Your task to perform on an android device: Open the calendar app, open the side menu, and click the "Day" option Image 0: 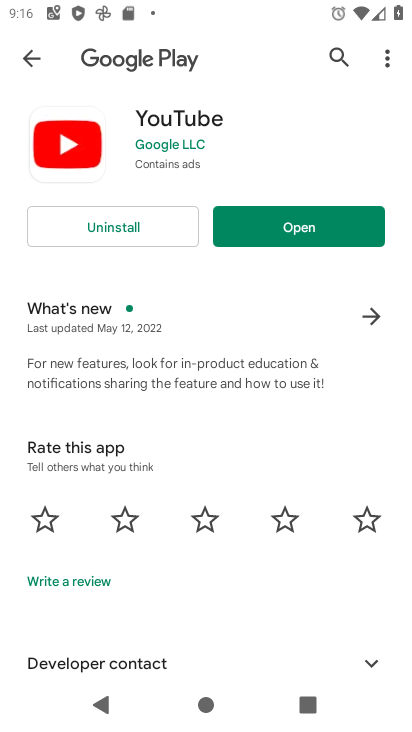
Step 0: press home button
Your task to perform on an android device: Open the calendar app, open the side menu, and click the "Day" option Image 1: 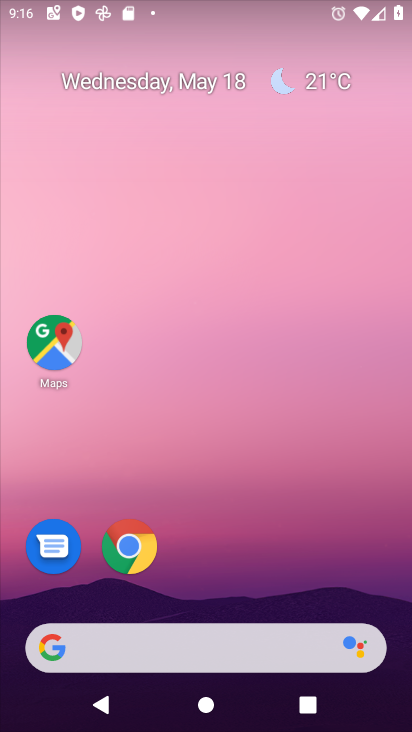
Step 1: drag from (407, 652) to (307, 85)
Your task to perform on an android device: Open the calendar app, open the side menu, and click the "Day" option Image 2: 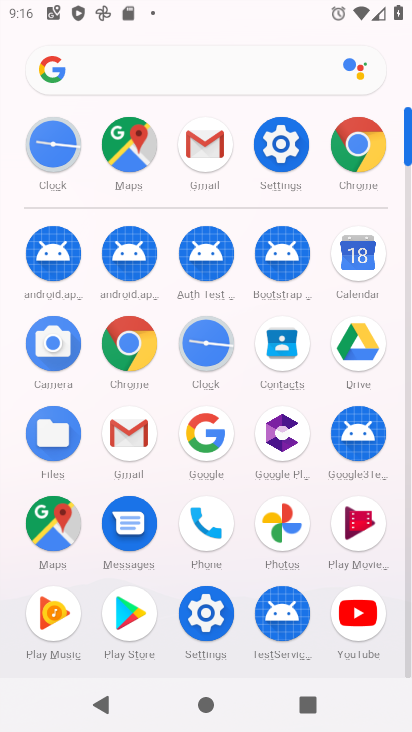
Step 2: click (367, 264)
Your task to perform on an android device: Open the calendar app, open the side menu, and click the "Day" option Image 3: 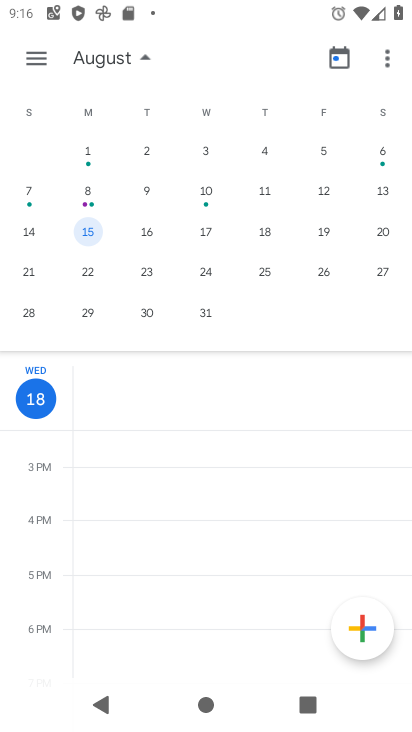
Step 3: click (36, 59)
Your task to perform on an android device: Open the calendar app, open the side menu, and click the "Day" option Image 4: 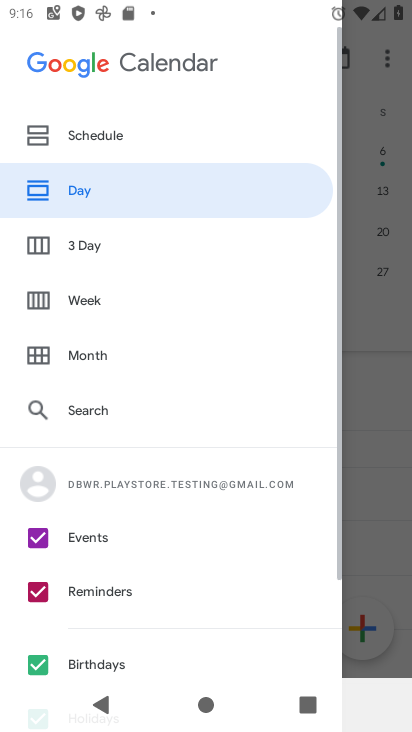
Step 4: click (172, 187)
Your task to perform on an android device: Open the calendar app, open the side menu, and click the "Day" option Image 5: 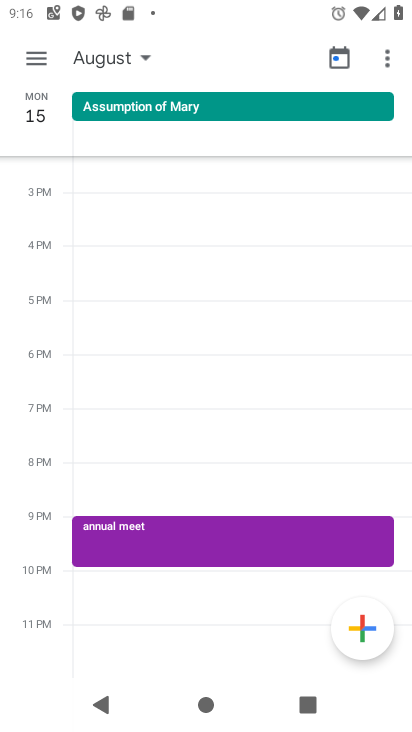
Step 5: task complete